Your task to perform on an android device: open app "VLC for Android" (install if not already installed) and enter user name: "Yves@outlook.com" and password: "internally" Image 0: 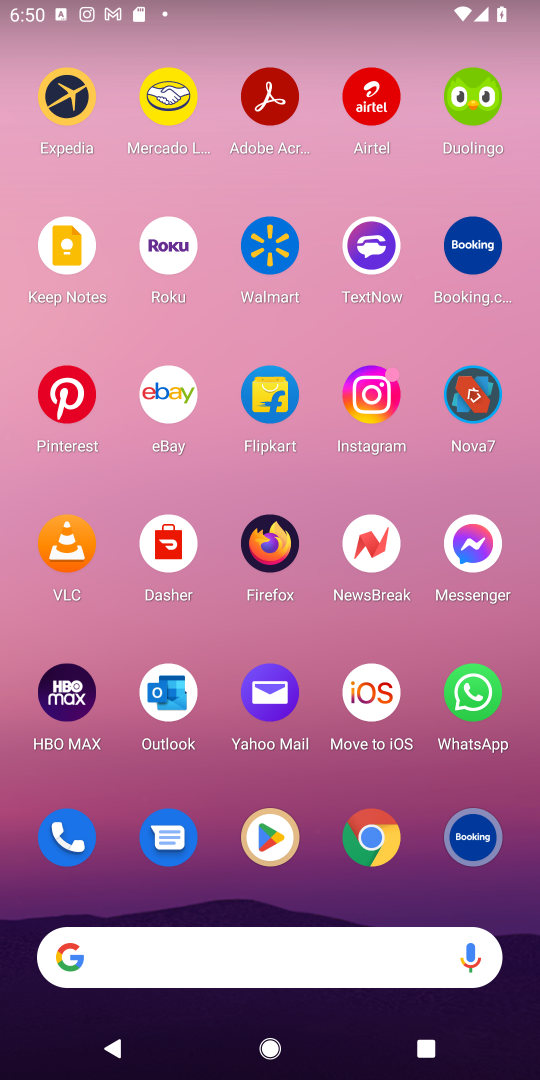
Step 0: press home button
Your task to perform on an android device: open app "VLC for Android" (install if not already installed) and enter user name: "Yves@outlook.com" and password: "internally" Image 1: 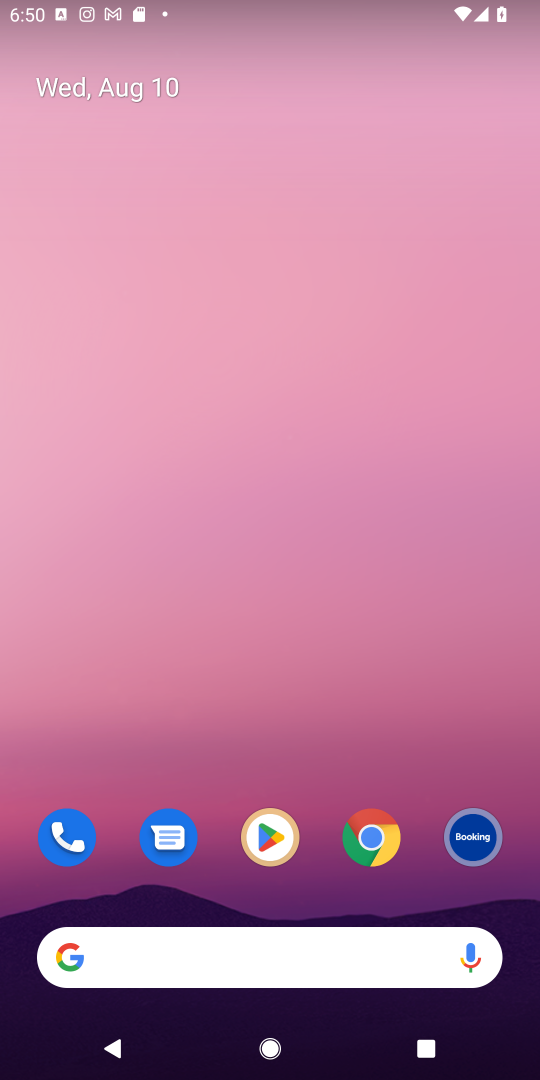
Step 1: click (271, 839)
Your task to perform on an android device: open app "VLC for Android" (install if not already installed) and enter user name: "Yves@outlook.com" and password: "internally" Image 2: 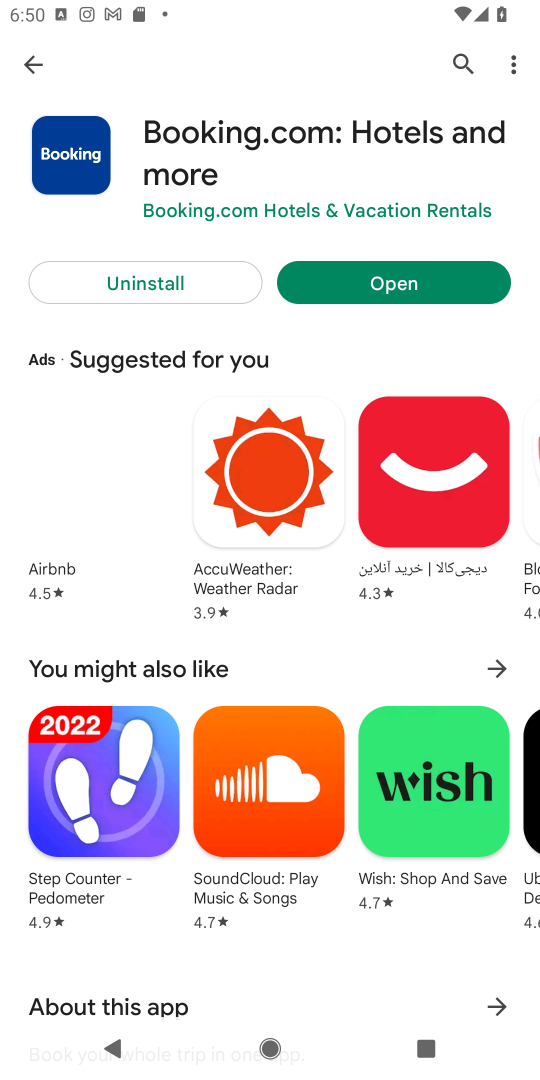
Step 2: click (462, 60)
Your task to perform on an android device: open app "VLC for Android" (install if not already installed) and enter user name: "Yves@outlook.com" and password: "internally" Image 3: 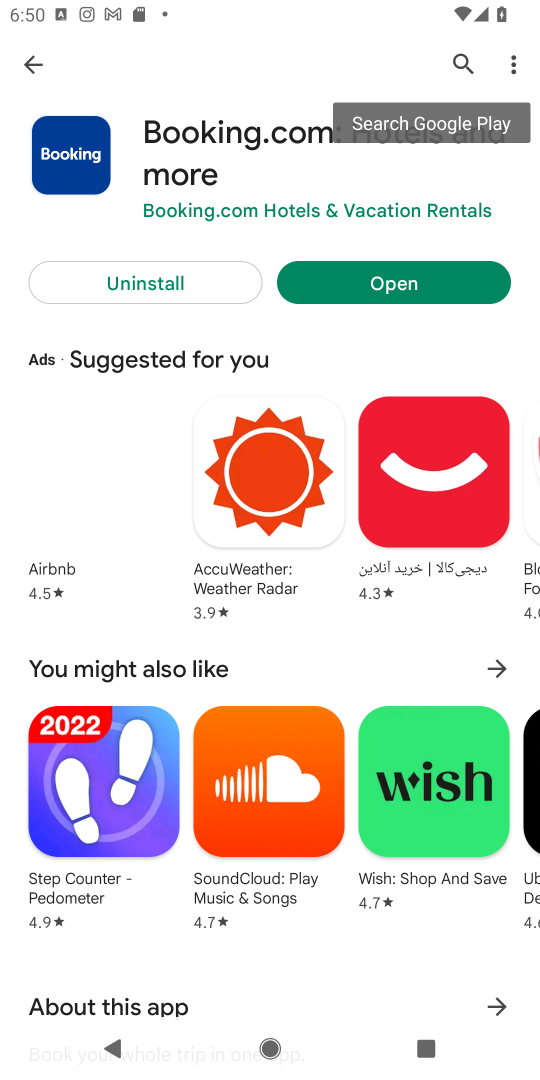
Step 3: click (456, 65)
Your task to perform on an android device: open app "VLC for Android" (install if not already installed) and enter user name: "Yves@outlook.com" and password: "internally" Image 4: 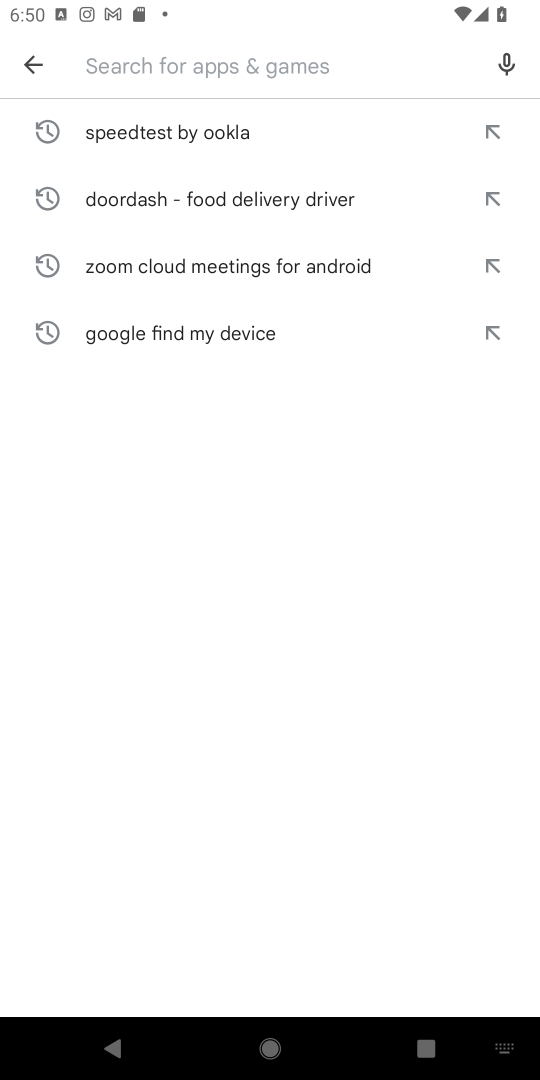
Step 4: type "VLC for Android"
Your task to perform on an android device: open app "VLC for Android" (install if not already installed) and enter user name: "Yves@outlook.com" and password: "internally" Image 5: 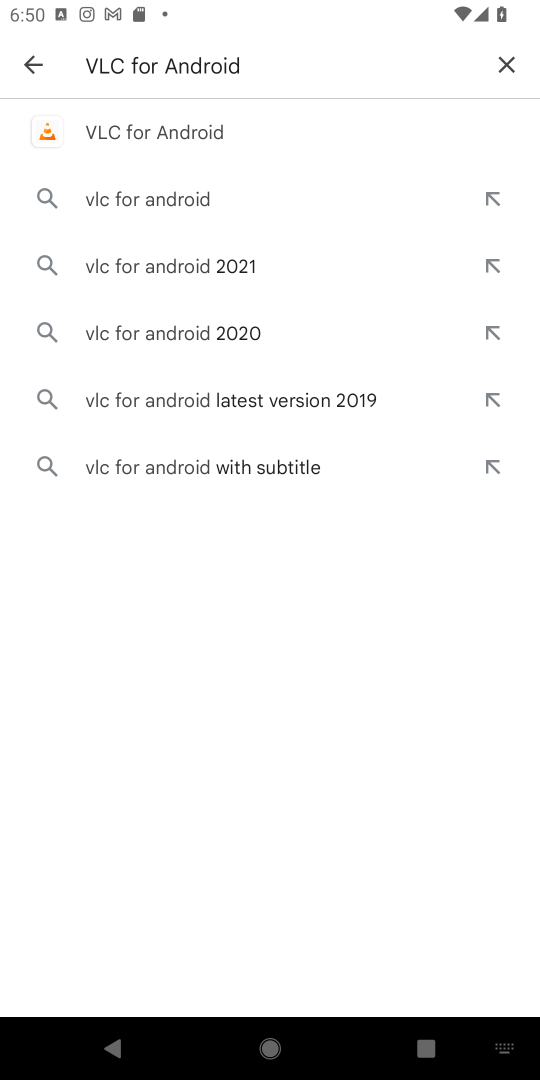
Step 5: click (175, 140)
Your task to perform on an android device: open app "VLC for Android" (install if not already installed) and enter user name: "Yves@outlook.com" and password: "internally" Image 6: 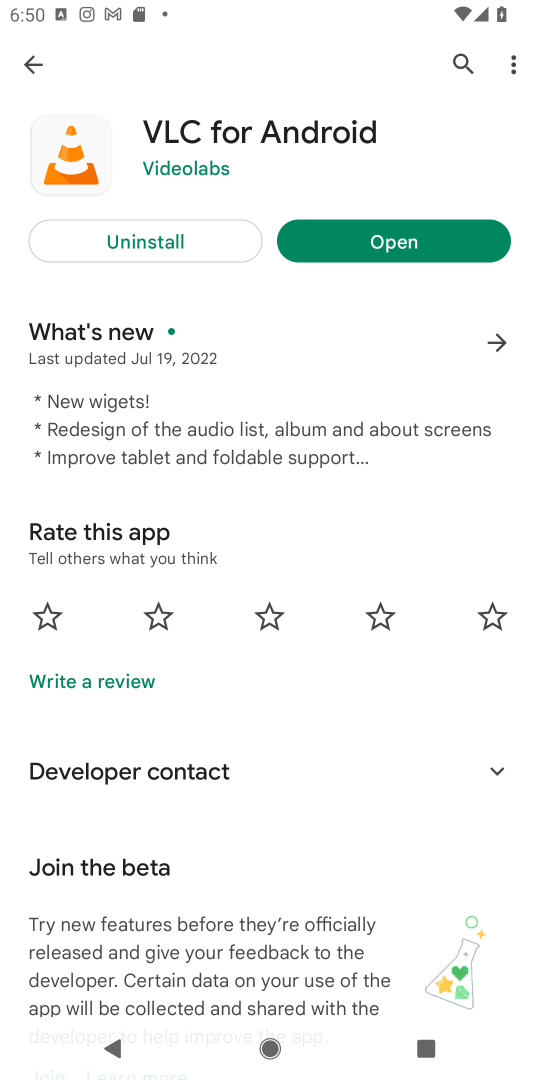
Step 6: click (368, 260)
Your task to perform on an android device: open app "VLC for Android" (install if not already installed) and enter user name: "Yves@outlook.com" and password: "internally" Image 7: 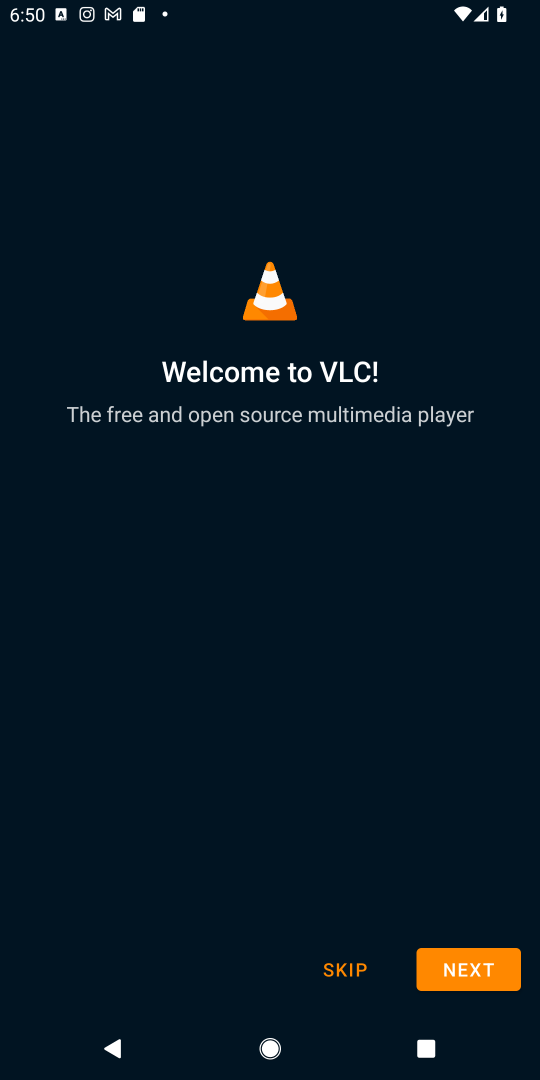
Step 7: click (464, 958)
Your task to perform on an android device: open app "VLC for Android" (install if not already installed) and enter user name: "Yves@outlook.com" and password: "internally" Image 8: 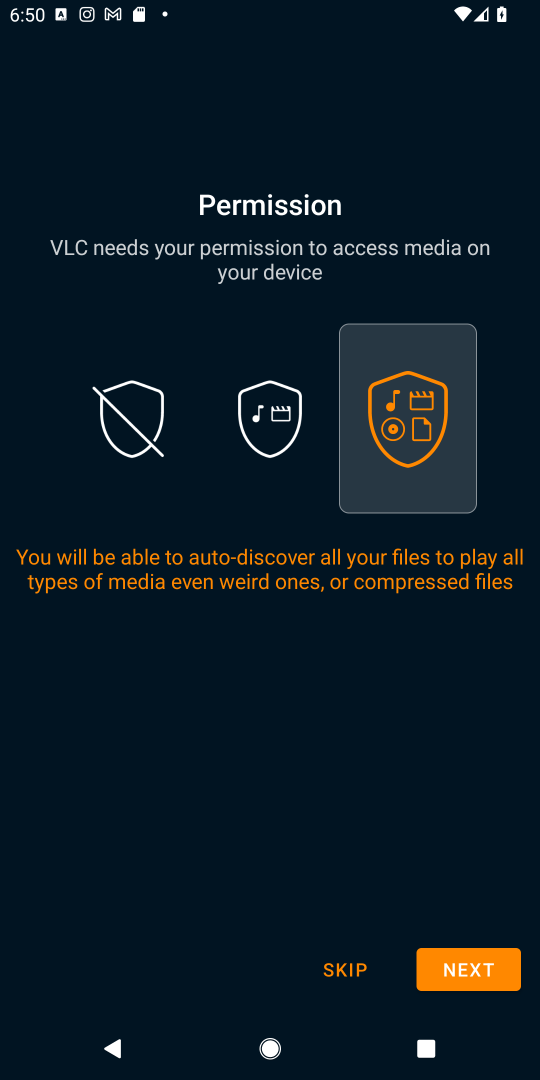
Step 8: click (462, 965)
Your task to perform on an android device: open app "VLC for Android" (install if not already installed) and enter user name: "Yves@outlook.com" and password: "internally" Image 9: 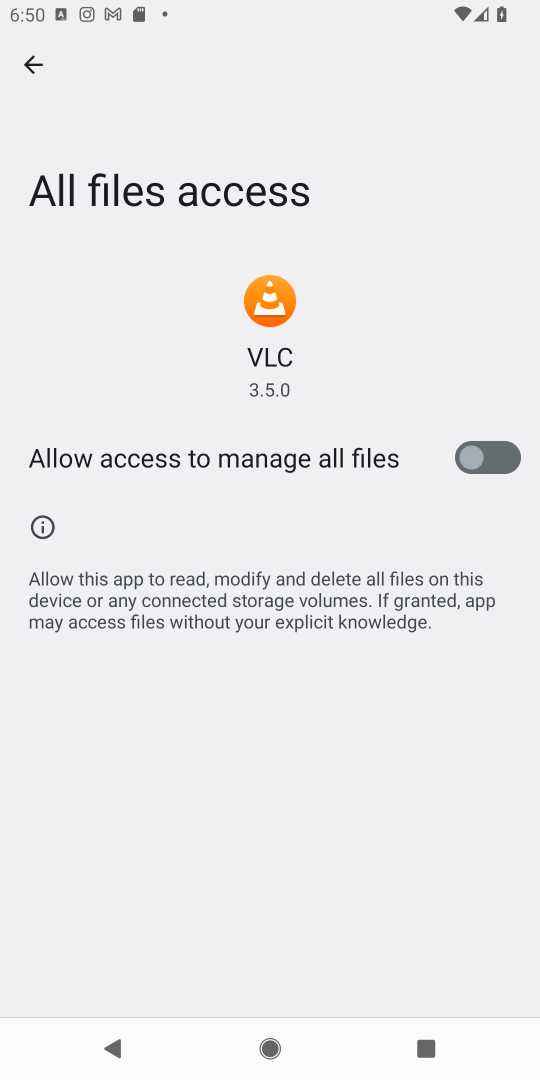
Step 9: click (481, 450)
Your task to perform on an android device: open app "VLC for Android" (install if not already installed) and enter user name: "Yves@outlook.com" and password: "internally" Image 10: 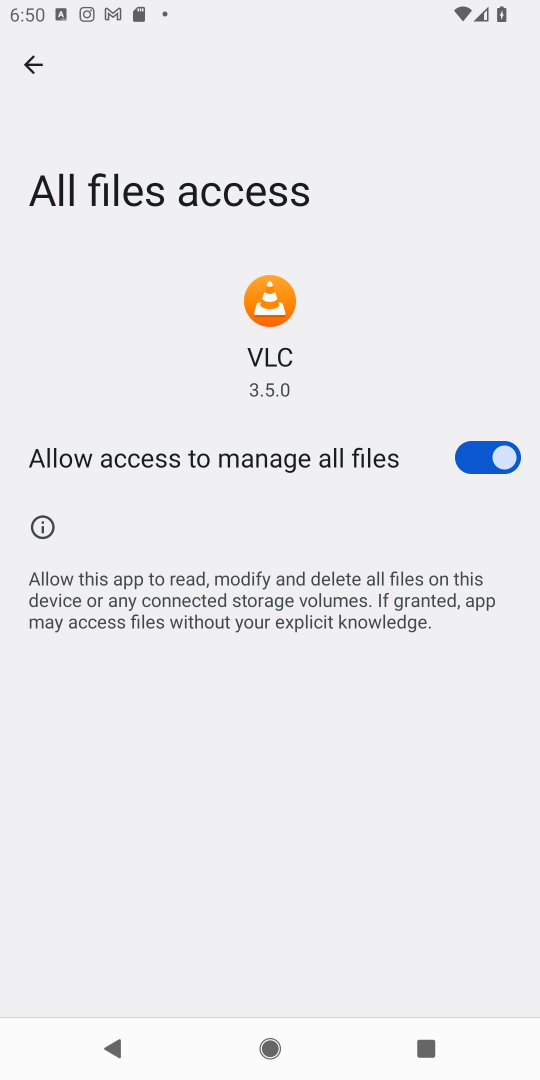
Step 10: click (38, 72)
Your task to perform on an android device: open app "VLC for Android" (install if not already installed) and enter user name: "Yves@outlook.com" and password: "internally" Image 11: 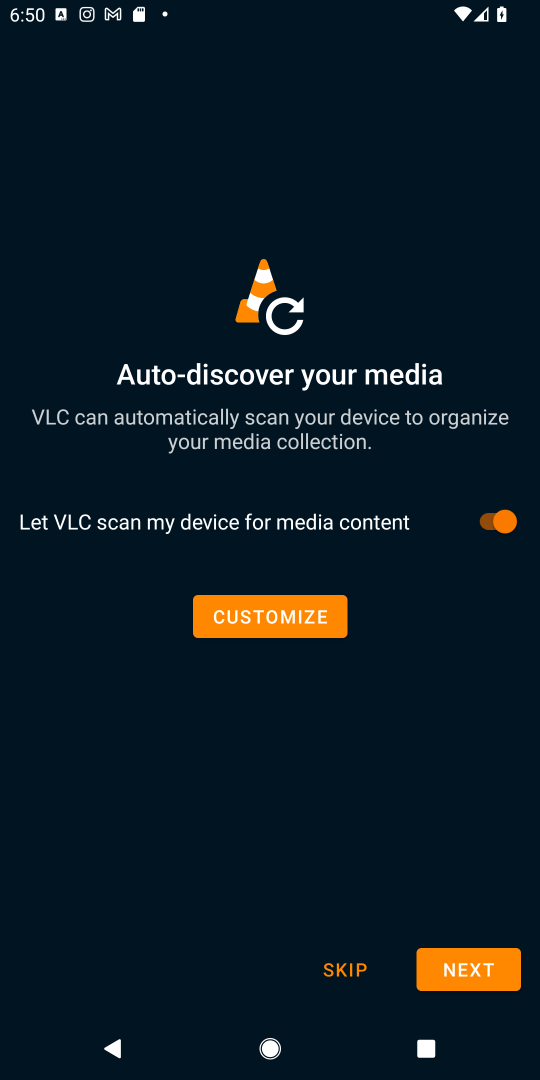
Step 11: click (487, 977)
Your task to perform on an android device: open app "VLC for Android" (install if not already installed) and enter user name: "Yves@outlook.com" and password: "internally" Image 12: 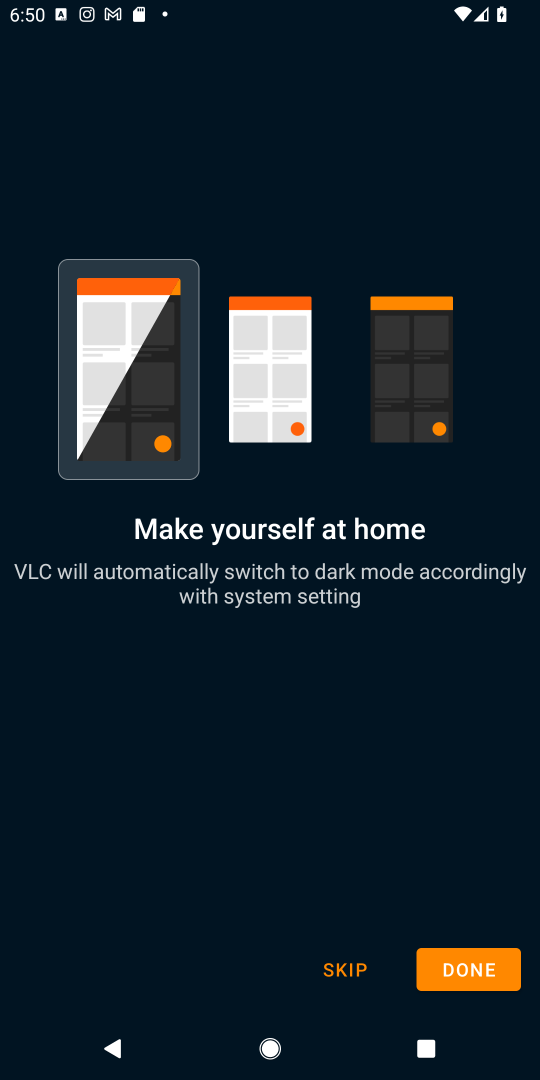
Step 12: click (487, 977)
Your task to perform on an android device: open app "VLC for Android" (install if not already installed) and enter user name: "Yves@outlook.com" and password: "internally" Image 13: 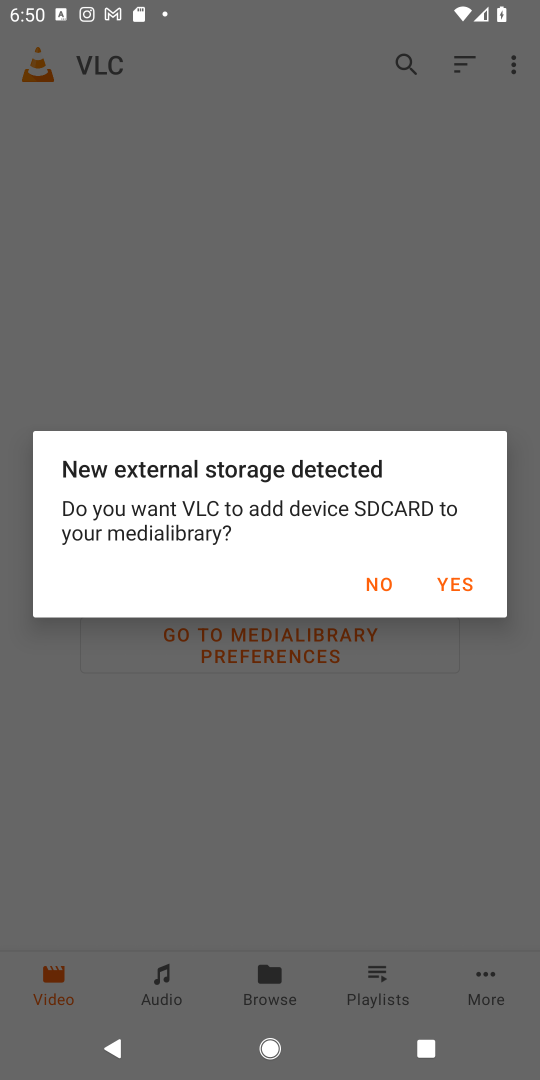
Step 13: task complete